Your task to perform on an android device: Go to internet settings Image 0: 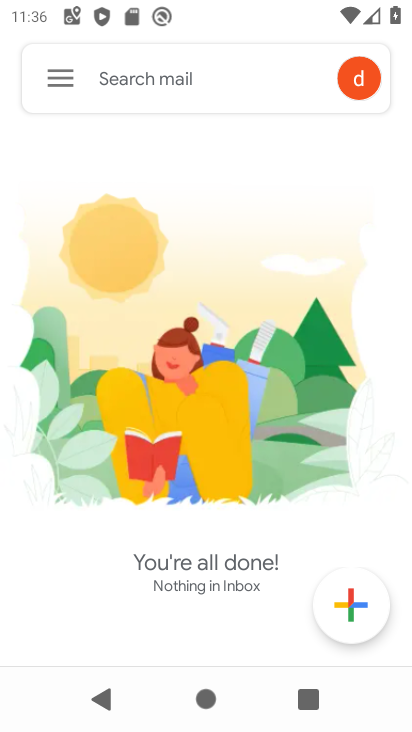
Step 0: press home button
Your task to perform on an android device: Go to internet settings Image 1: 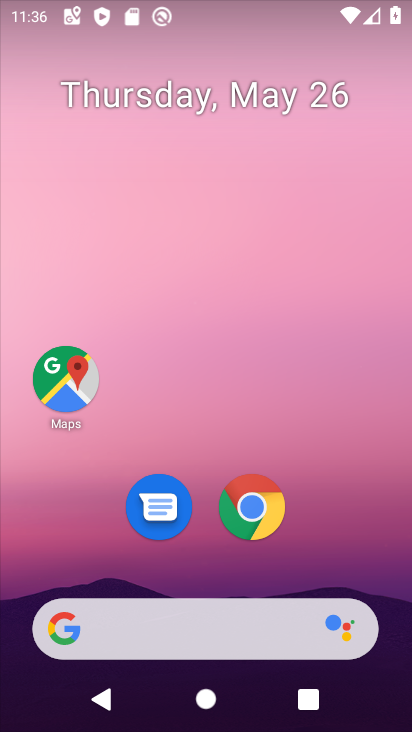
Step 1: drag from (360, 498) to (383, 97)
Your task to perform on an android device: Go to internet settings Image 2: 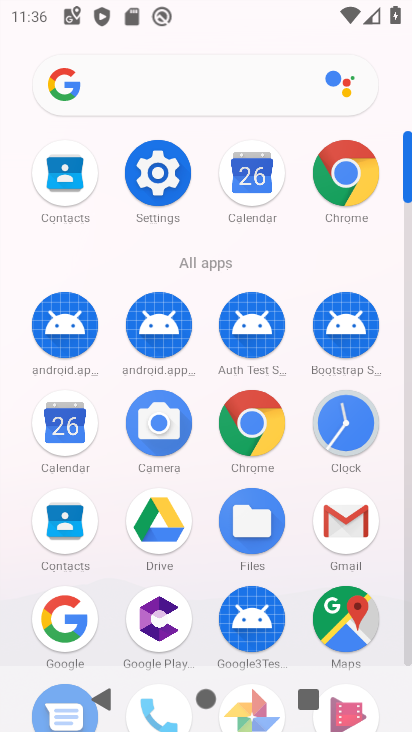
Step 2: click (154, 160)
Your task to perform on an android device: Go to internet settings Image 3: 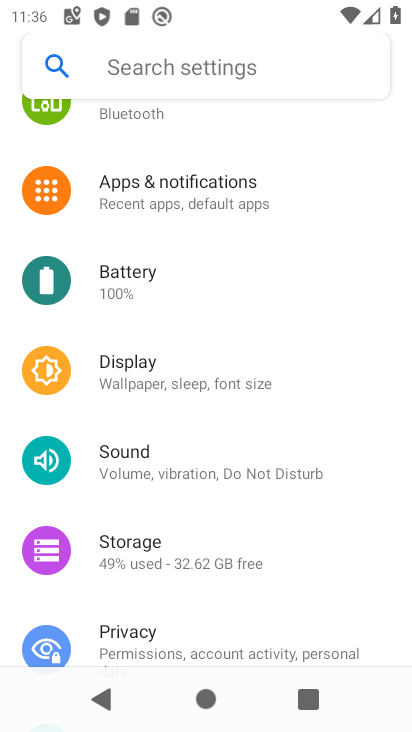
Step 3: drag from (157, 142) to (199, 552)
Your task to perform on an android device: Go to internet settings Image 4: 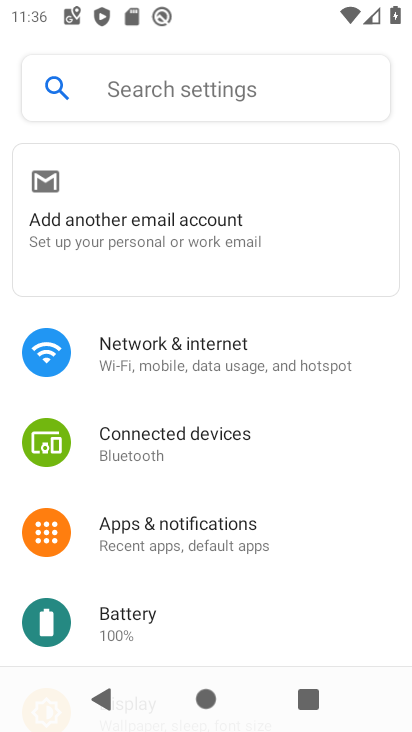
Step 4: click (231, 365)
Your task to perform on an android device: Go to internet settings Image 5: 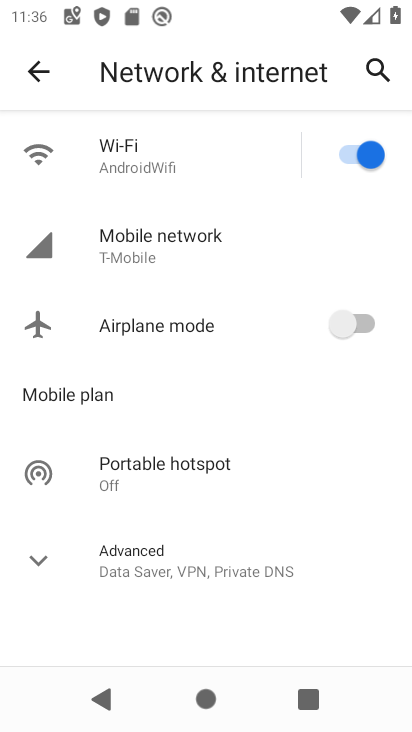
Step 5: task complete